Your task to perform on an android device: Open display settings Image 0: 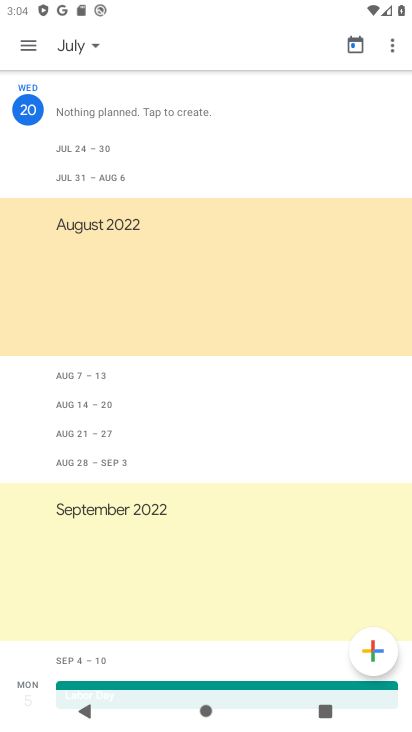
Step 0: drag from (155, 11) to (120, 670)
Your task to perform on an android device: Open display settings Image 1: 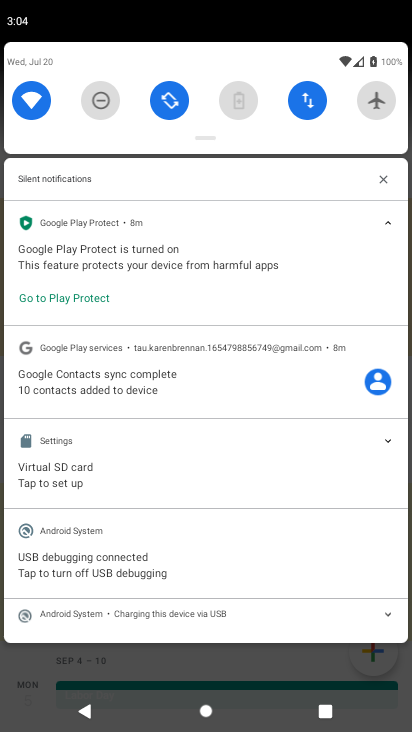
Step 1: drag from (244, 64) to (298, 611)
Your task to perform on an android device: Open display settings Image 2: 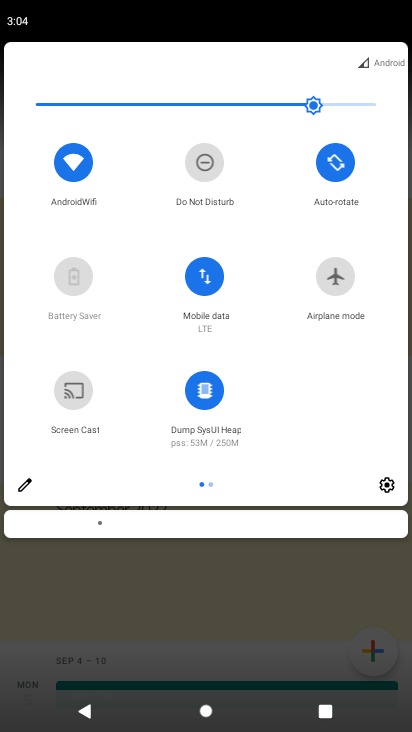
Step 2: click (386, 483)
Your task to perform on an android device: Open display settings Image 3: 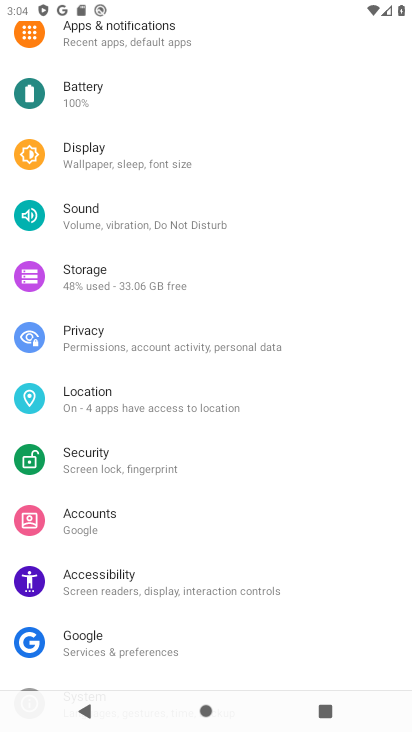
Step 3: click (120, 144)
Your task to perform on an android device: Open display settings Image 4: 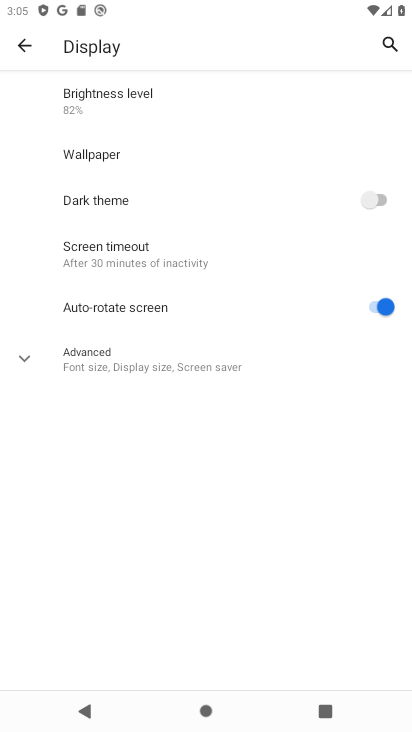
Step 4: task complete